Your task to perform on an android device: Go to Wikipedia Image 0: 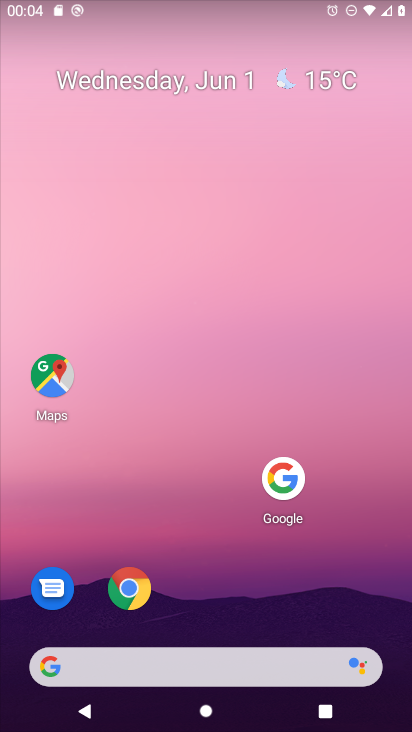
Step 0: press home button
Your task to perform on an android device: Go to Wikipedia Image 1: 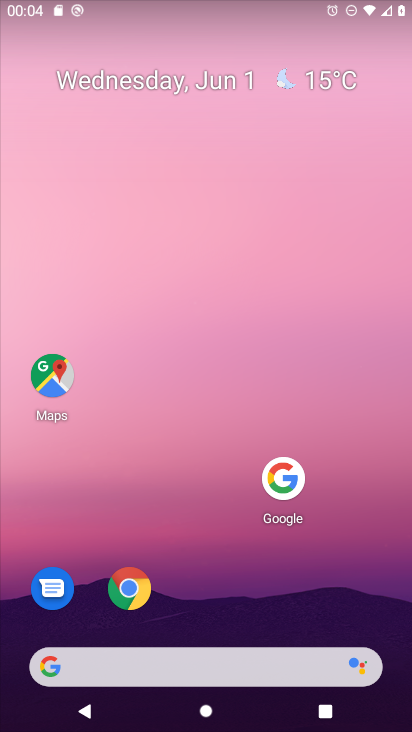
Step 1: click (133, 594)
Your task to perform on an android device: Go to Wikipedia Image 2: 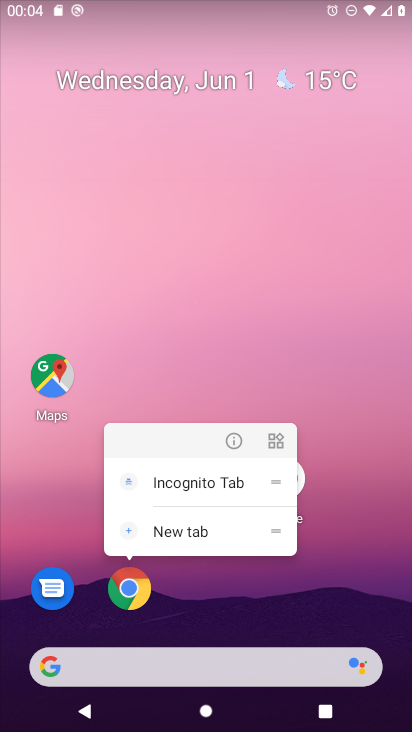
Step 2: click (125, 593)
Your task to perform on an android device: Go to Wikipedia Image 3: 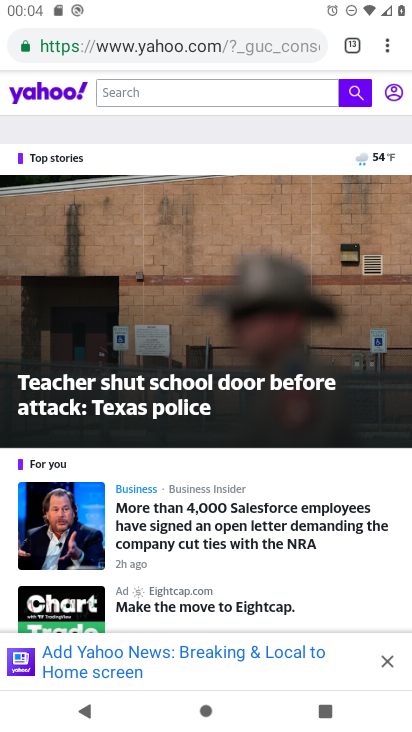
Step 3: drag from (389, 45) to (289, 90)
Your task to perform on an android device: Go to Wikipedia Image 4: 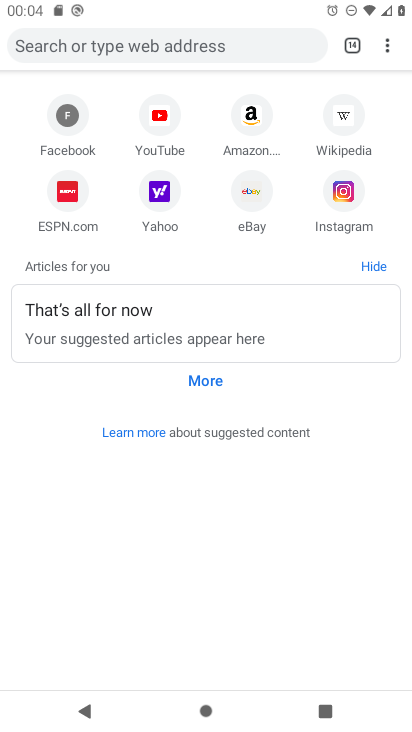
Step 4: click (353, 110)
Your task to perform on an android device: Go to Wikipedia Image 5: 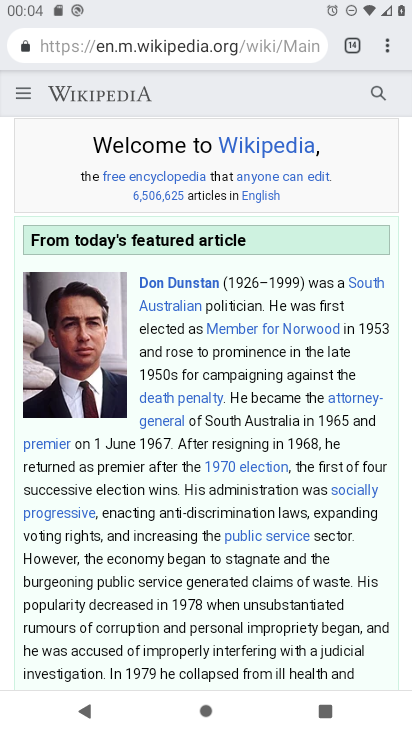
Step 5: task complete